Your task to perform on an android device: move an email to a new category in the gmail app Image 0: 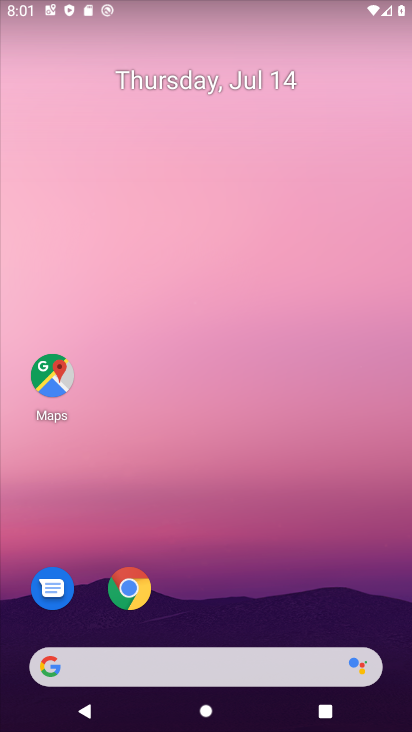
Step 0: drag from (235, 585) to (233, 179)
Your task to perform on an android device: move an email to a new category in the gmail app Image 1: 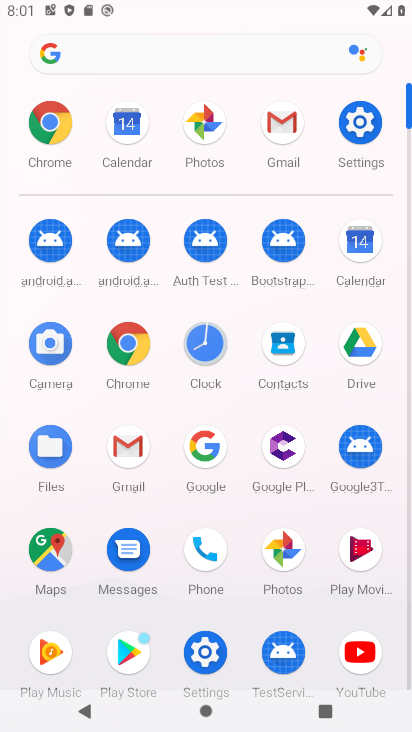
Step 1: click (284, 116)
Your task to perform on an android device: move an email to a new category in the gmail app Image 2: 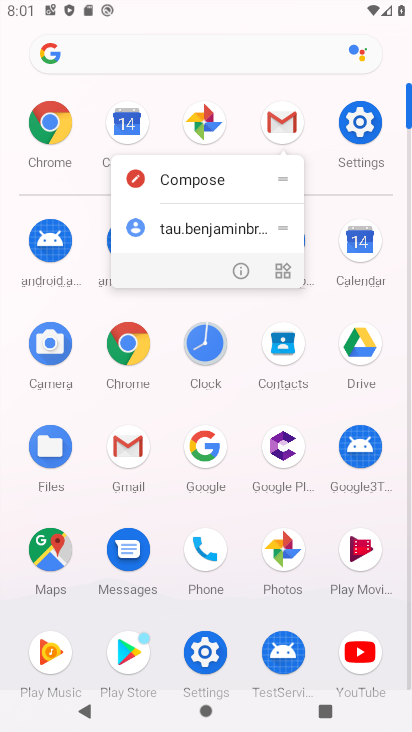
Step 2: click (284, 116)
Your task to perform on an android device: move an email to a new category in the gmail app Image 3: 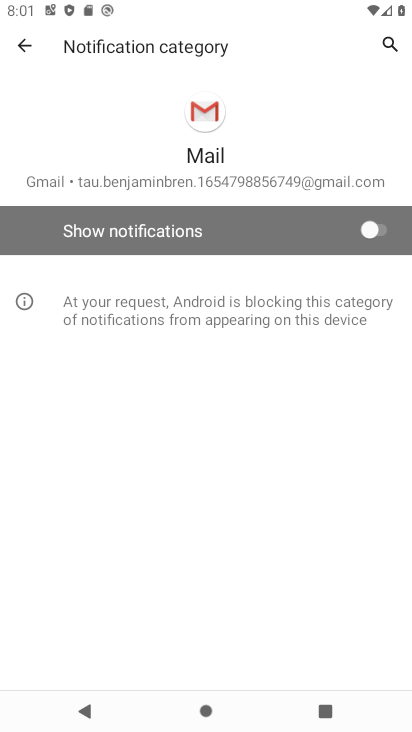
Step 3: click (24, 42)
Your task to perform on an android device: move an email to a new category in the gmail app Image 4: 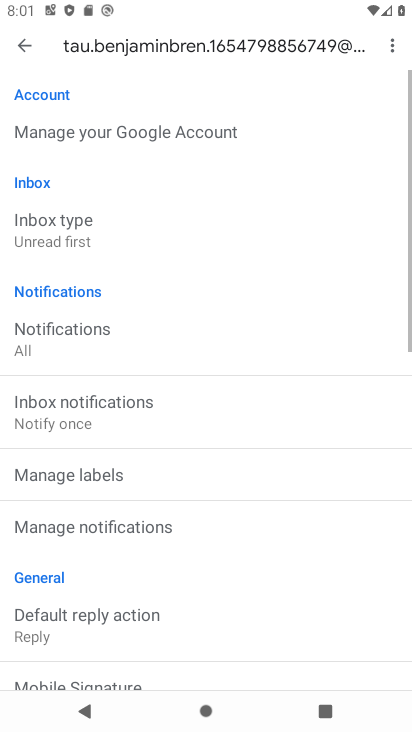
Step 4: click (24, 42)
Your task to perform on an android device: move an email to a new category in the gmail app Image 5: 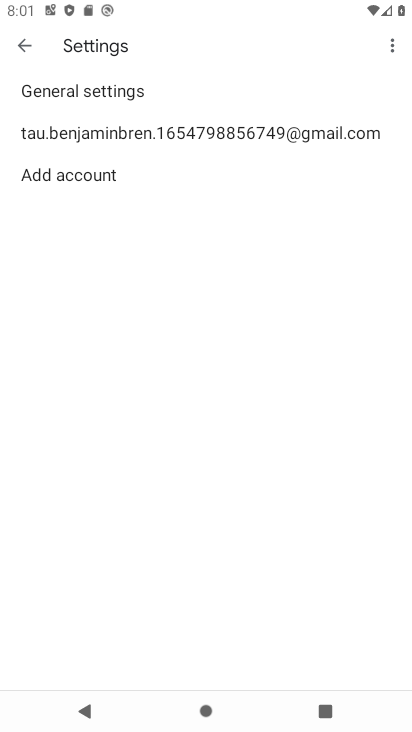
Step 5: click (24, 42)
Your task to perform on an android device: move an email to a new category in the gmail app Image 6: 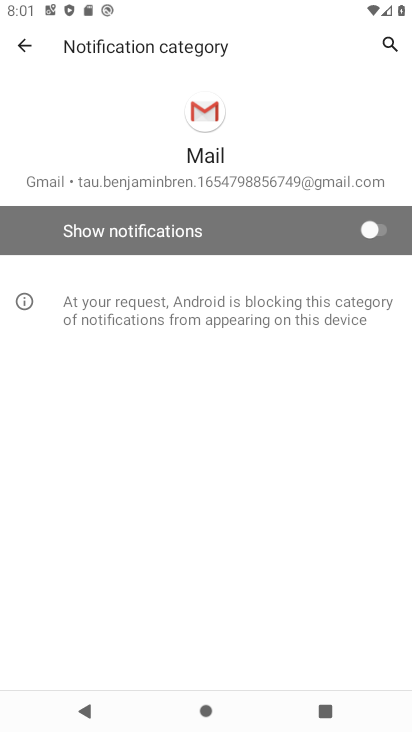
Step 6: click (24, 42)
Your task to perform on an android device: move an email to a new category in the gmail app Image 7: 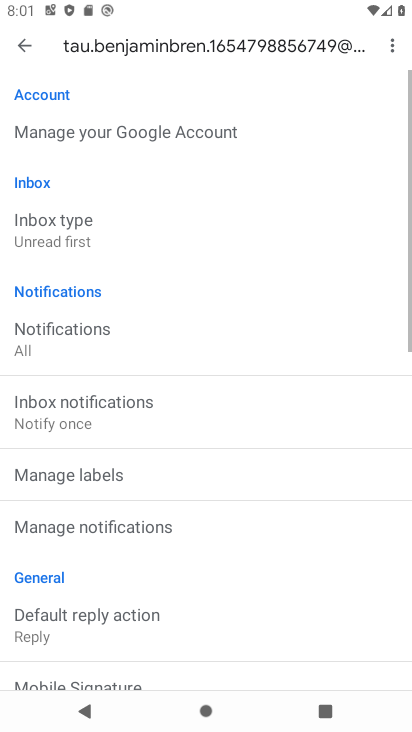
Step 7: click (24, 42)
Your task to perform on an android device: move an email to a new category in the gmail app Image 8: 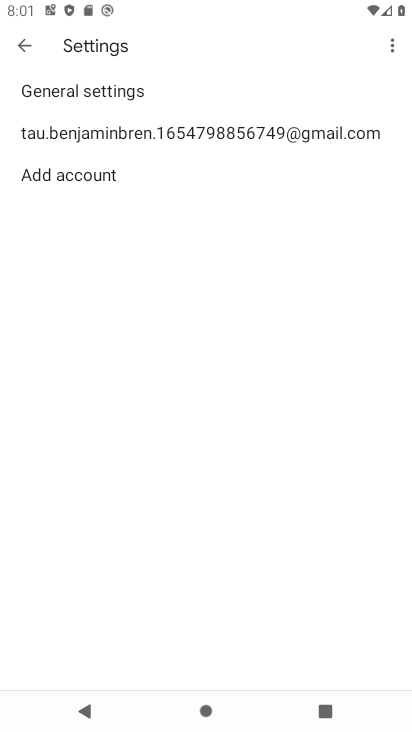
Step 8: click (24, 42)
Your task to perform on an android device: move an email to a new category in the gmail app Image 9: 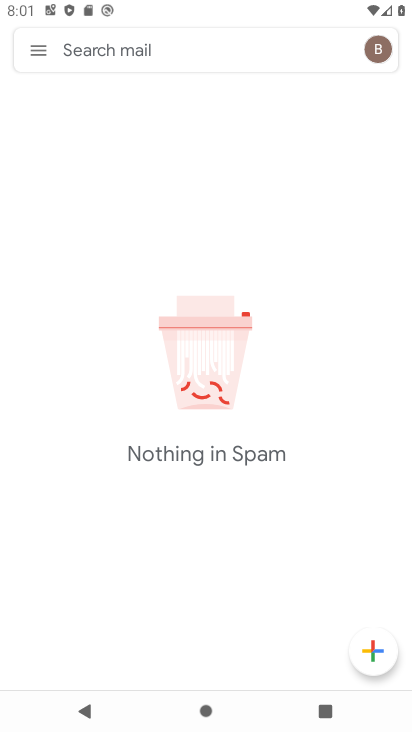
Step 9: click (24, 42)
Your task to perform on an android device: move an email to a new category in the gmail app Image 10: 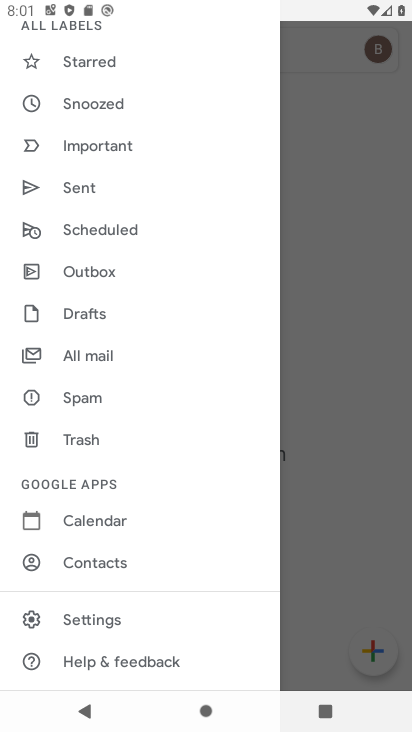
Step 10: click (95, 356)
Your task to perform on an android device: move an email to a new category in the gmail app Image 11: 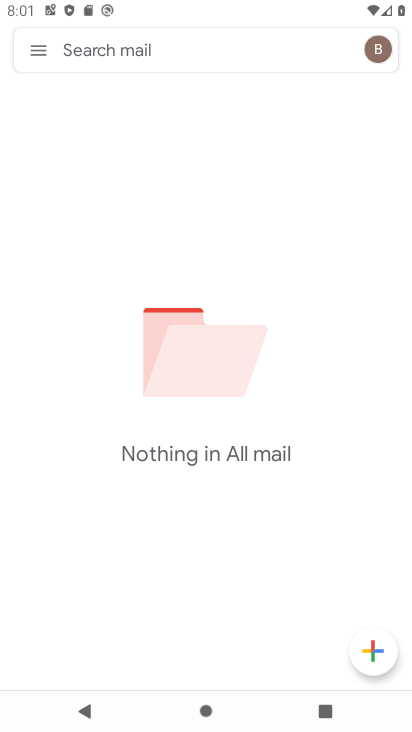
Step 11: task complete